Your task to perform on an android device: Do I have any events this weekend? Image 0: 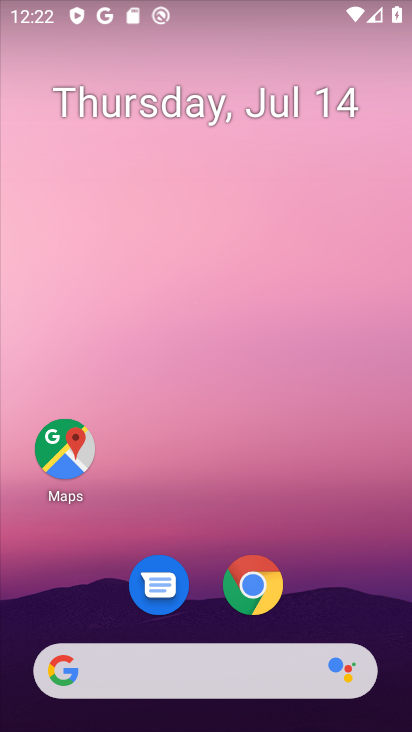
Step 0: drag from (326, 550) to (287, 58)
Your task to perform on an android device: Do I have any events this weekend? Image 1: 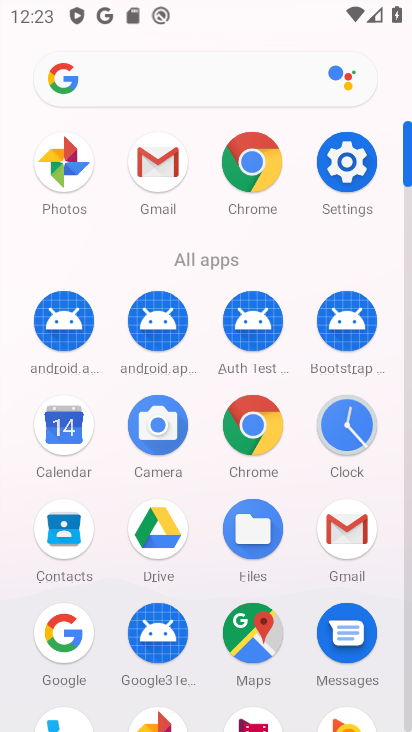
Step 1: click (61, 422)
Your task to perform on an android device: Do I have any events this weekend? Image 2: 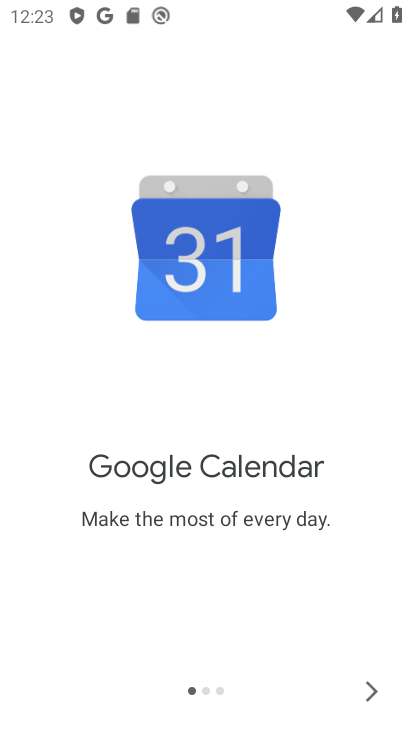
Step 2: click (371, 682)
Your task to perform on an android device: Do I have any events this weekend? Image 3: 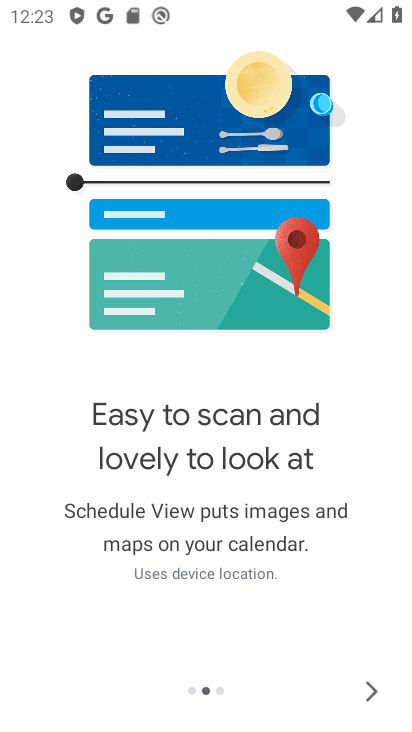
Step 3: click (372, 692)
Your task to perform on an android device: Do I have any events this weekend? Image 4: 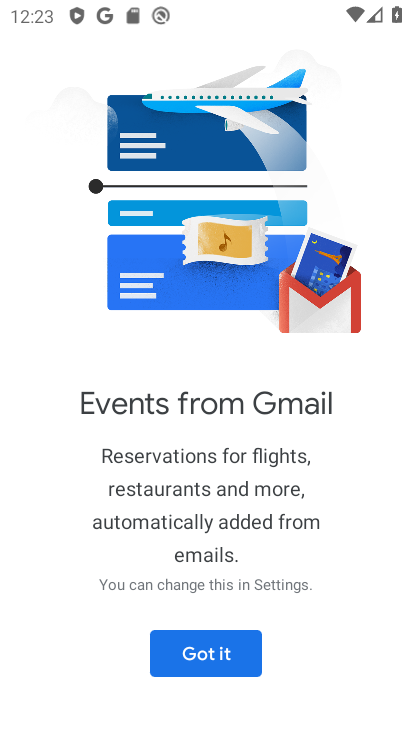
Step 4: click (246, 659)
Your task to perform on an android device: Do I have any events this weekend? Image 5: 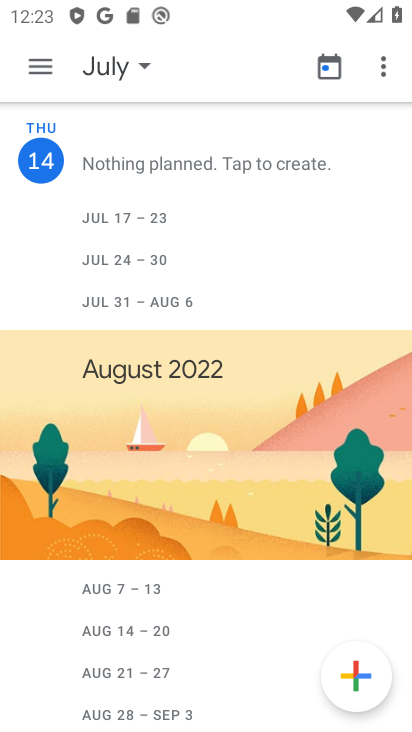
Step 5: click (36, 74)
Your task to perform on an android device: Do I have any events this weekend? Image 6: 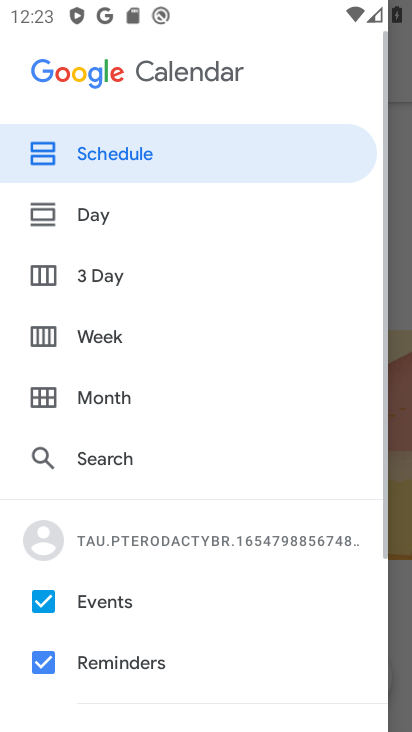
Step 6: click (46, 332)
Your task to perform on an android device: Do I have any events this weekend? Image 7: 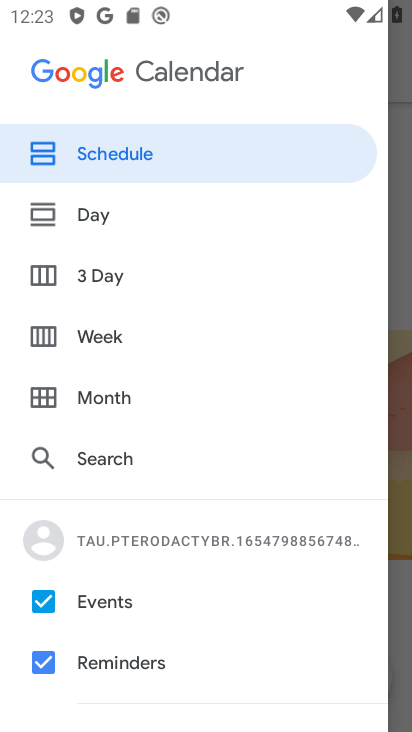
Step 7: click (34, 324)
Your task to perform on an android device: Do I have any events this weekend? Image 8: 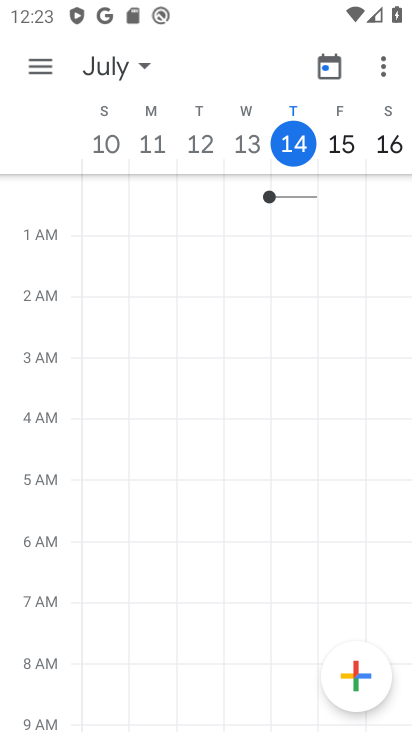
Step 8: task complete